Your task to perform on an android device: see sites visited before in the chrome app Image 0: 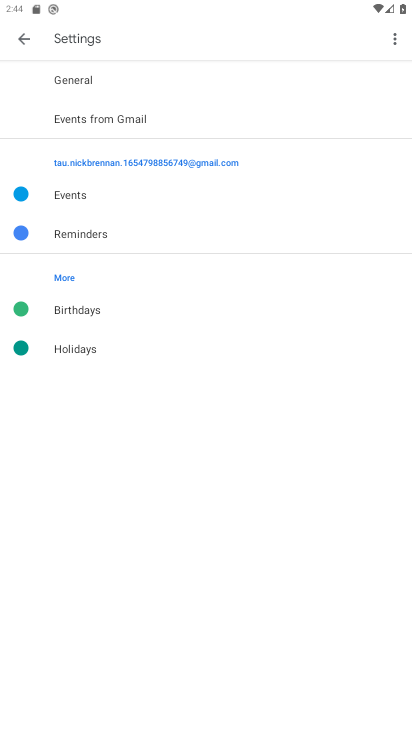
Step 0: press home button
Your task to perform on an android device: see sites visited before in the chrome app Image 1: 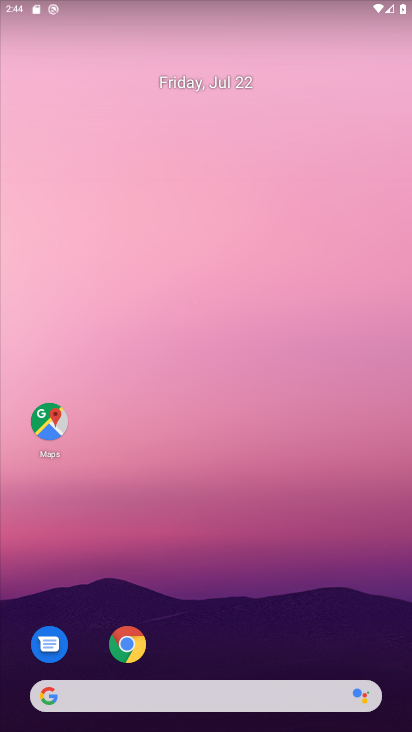
Step 1: click (126, 651)
Your task to perform on an android device: see sites visited before in the chrome app Image 2: 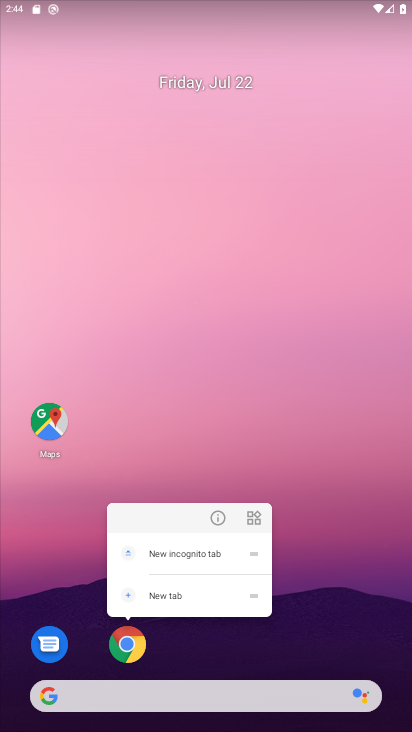
Step 2: click (126, 651)
Your task to perform on an android device: see sites visited before in the chrome app Image 3: 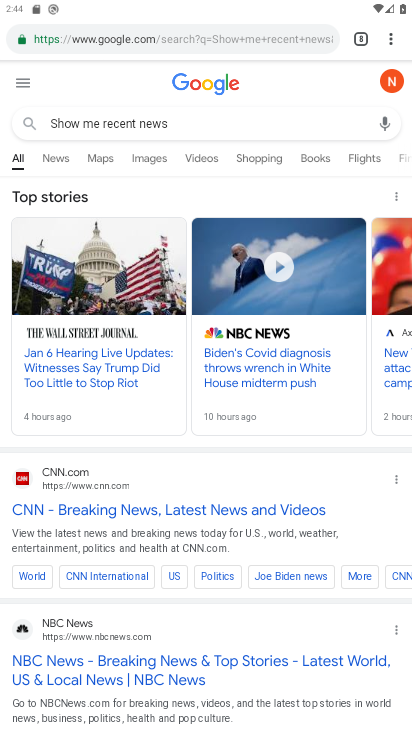
Step 3: click (393, 36)
Your task to perform on an android device: see sites visited before in the chrome app Image 4: 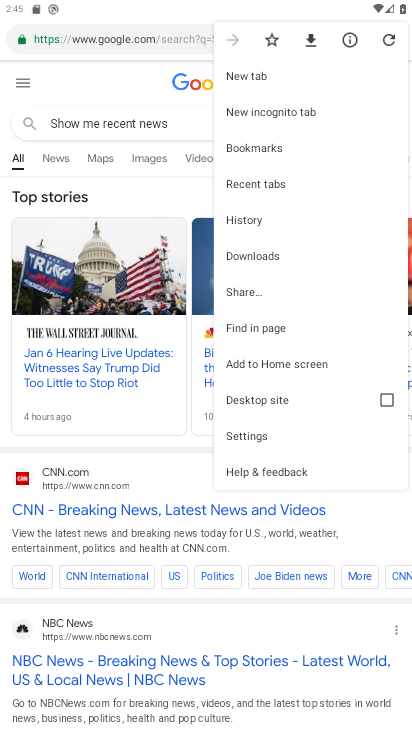
Step 4: click (251, 217)
Your task to perform on an android device: see sites visited before in the chrome app Image 5: 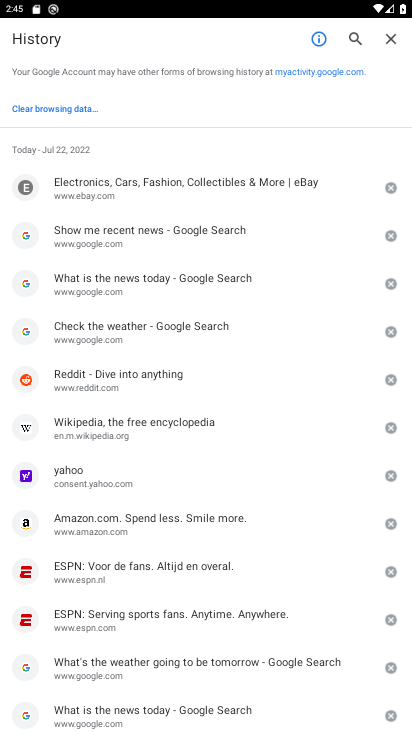
Step 5: task complete